Your task to perform on an android device: Open eBay Image 0: 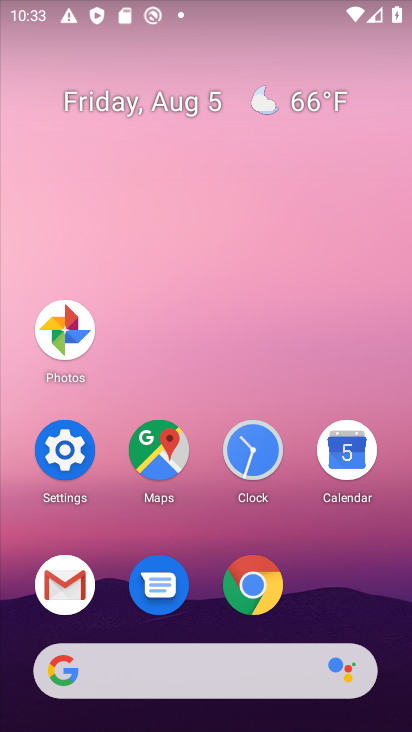
Step 0: click (255, 589)
Your task to perform on an android device: Open eBay Image 1: 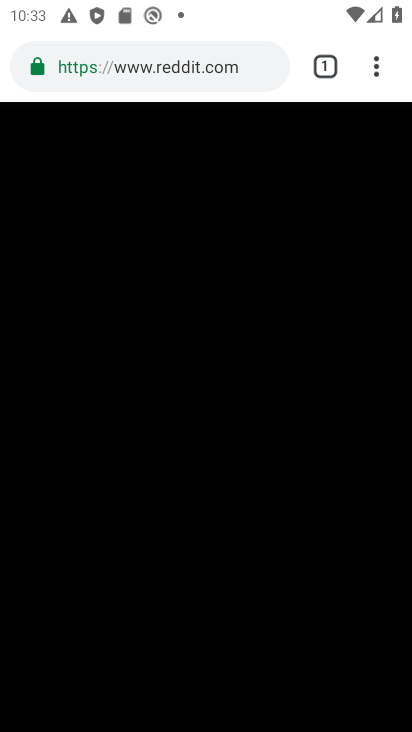
Step 1: click (379, 57)
Your task to perform on an android device: Open eBay Image 2: 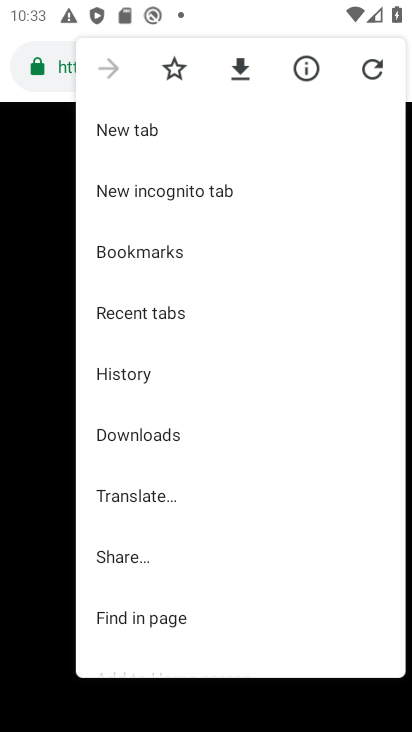
Step 2: click (123, 129)
Your task to perform on an android device: Open eBay Image 3: 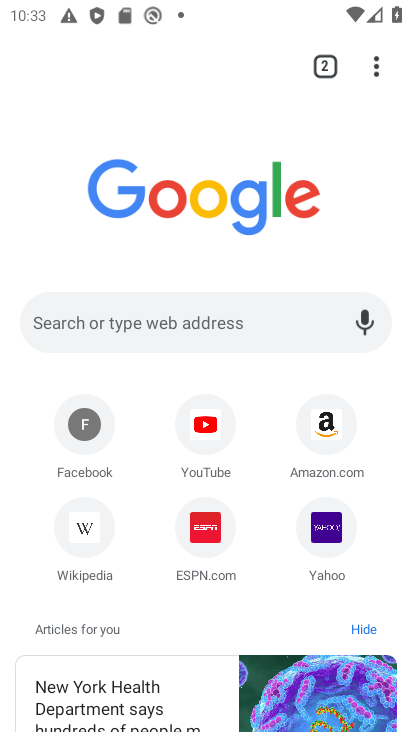
Step 3: click (169, 321)
Your task to perform on an android device: Open eBay Image 4: 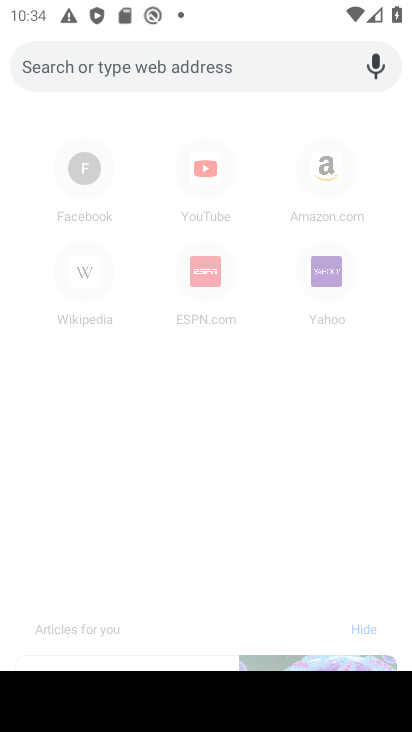
Step 4: type "ebay"
Your task to perform on an android device: Open eBay Image 5: 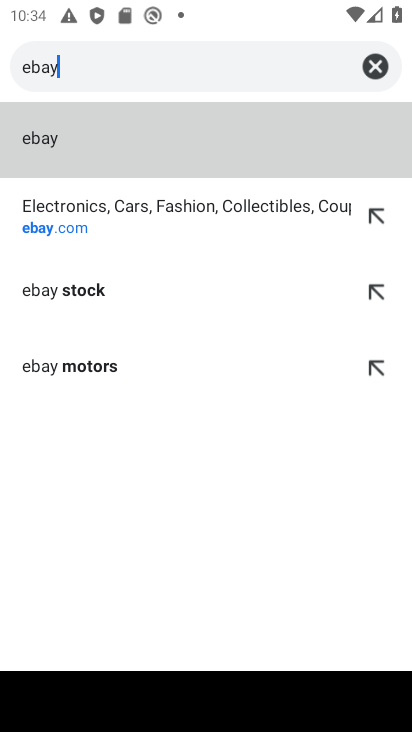
Step 5: click (53, 122)
Your task to perform on an android device: Open eBay Image 6: 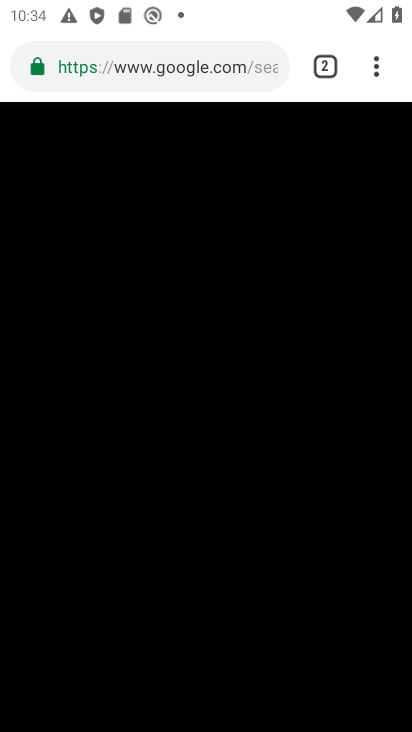
Step 6: click (377, 69)
Your task to perform on an android device: Open eBay Image 7: 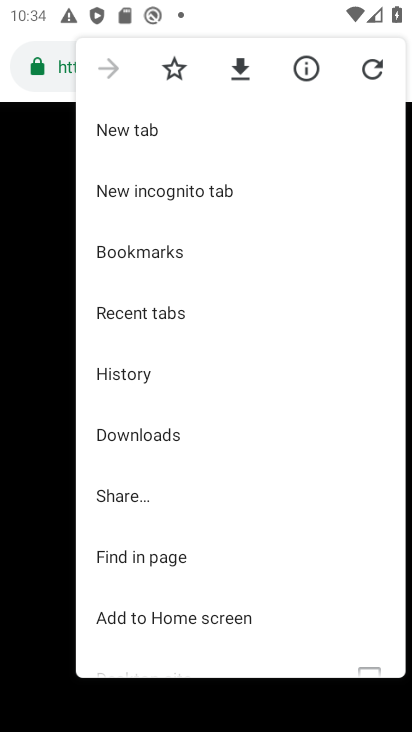
Step 7: click (372, 69)
Your task to perform on an android device: Open eBay Image 8: 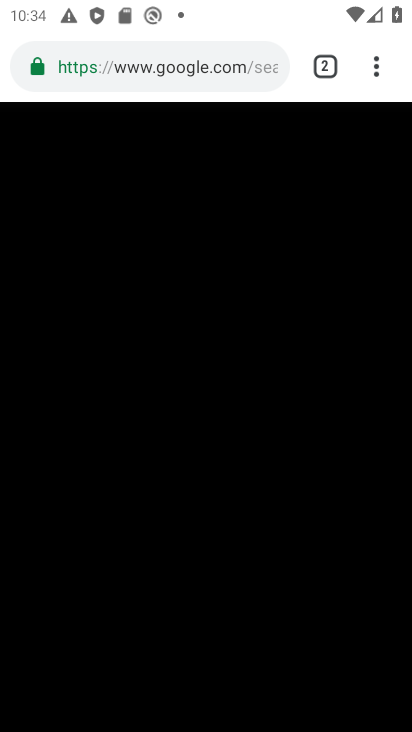
Step 8: click (377, 68)
Your task to perform on an android device: Open eBay Image 9: 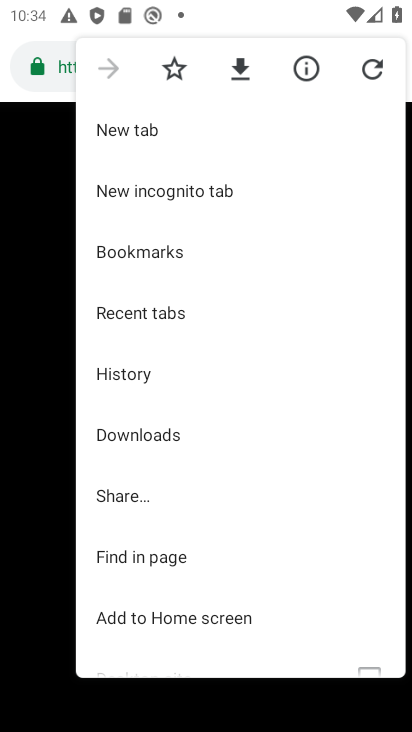
Step 9: click (367, 68)
Your task to perform on an android device: Open eBay Image 10: 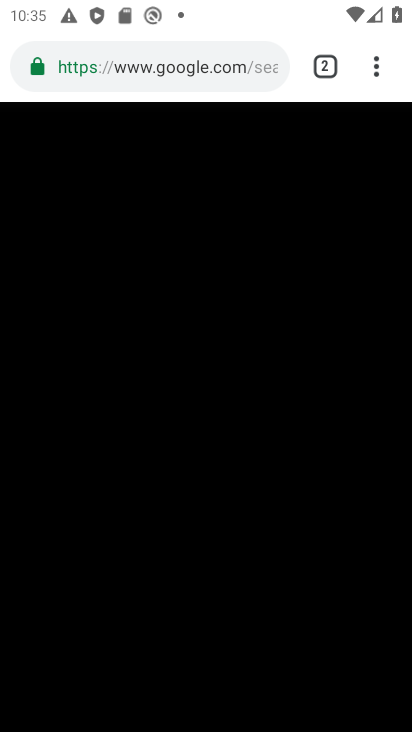
Step 10: task complete